Your task to perform on an android device: Open Chrome and go to settings Image 0: 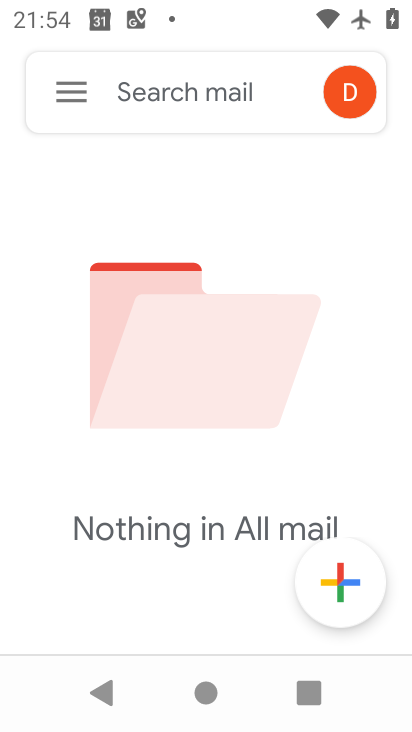
Step 0: press home button
Your task to perform on an android device: Open Chrome and go to settings Image 1: 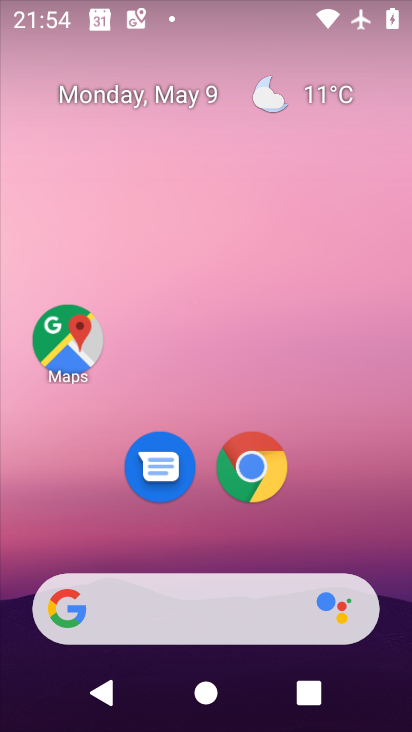
Step 1: drag from (329, 528) to (309, 297)
Your task to perform on an android device: Open Chrome and go to settings Image 2: 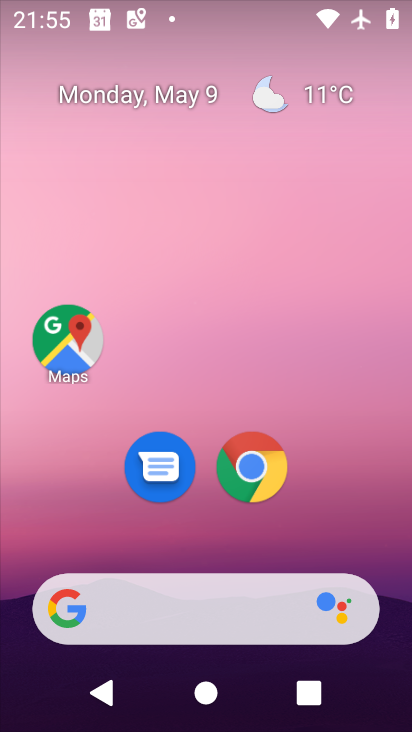
Step 2: drag from (320, 511) to (326, 232)
Your task to perform on an android device: Open Chrome and go to settings Image 3: 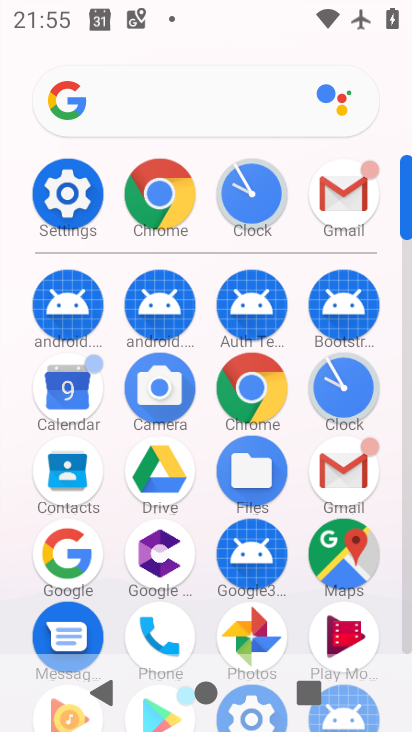
Step 3: click (252, 382)
Your task to perform on an android device: Open Chrome and go to settings Image 4: 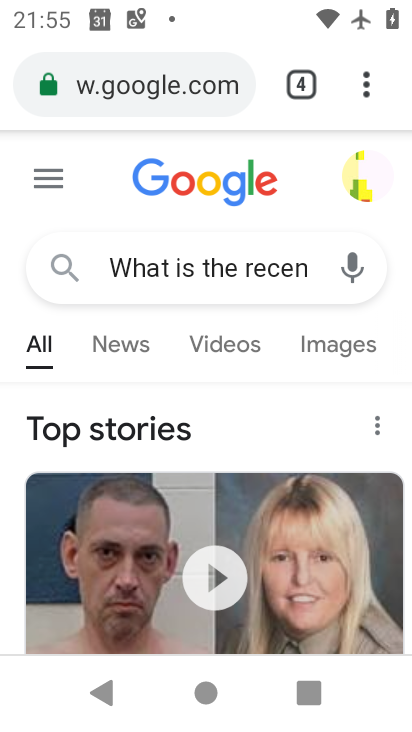
Step 4: click (354, 89)
Your task to perform on an android device: Open Chrome and go to settings Image 5: 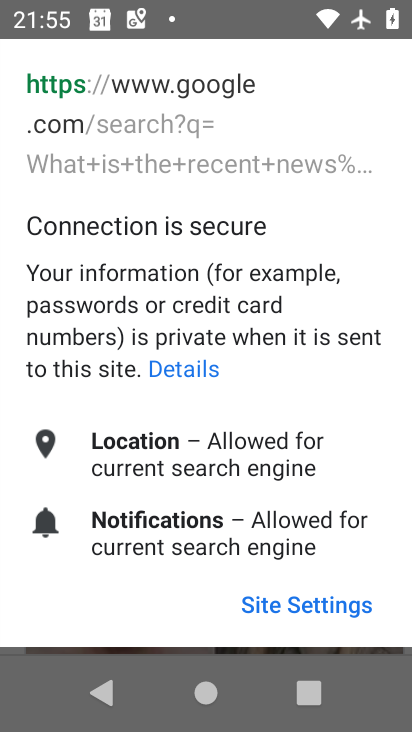
Step 5: press back button
Your task to perform on an android device: Open Chrome and go to settings Image 6: 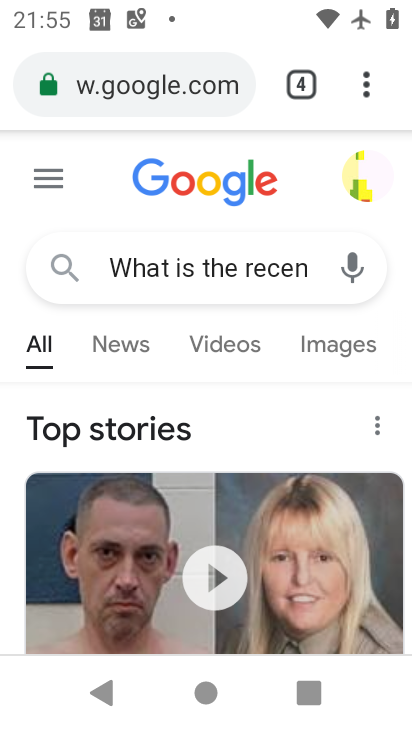
Step 6: click (357, 85)
Your task to perform on an android device: Open Chrome and go to settings Image 7: 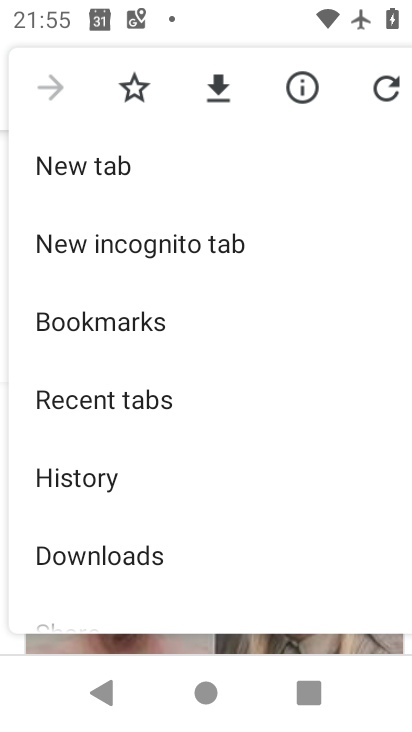
Step 7: drag from (261, 557) to (301, 237)
Your task to perform on an android device: Open Chrome and go to settings Image 8: 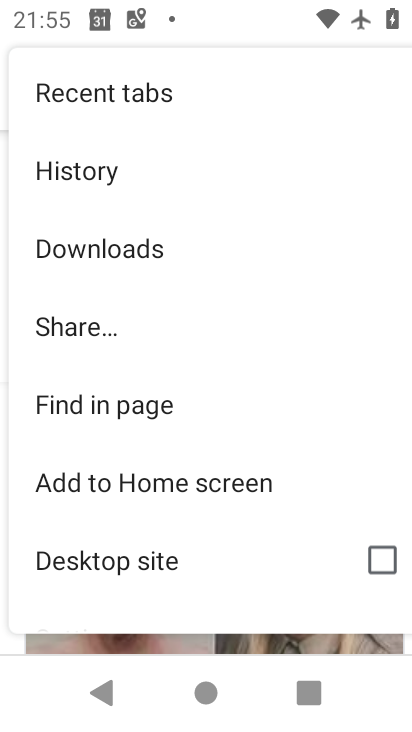
Step 8: drag from (198, 576) to (264, 126)
Your task to perform on an android device: Open Chrome and go to settings Image 9: 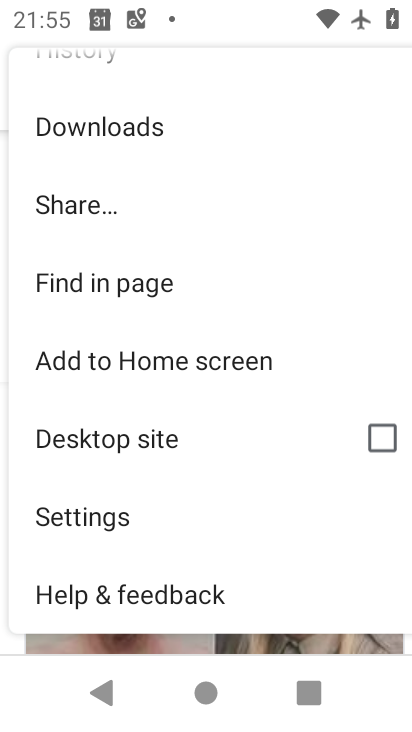
Step 9: click (121, 514)
Your task to perform on an android device: Open Chrome and go to settings Image 10: 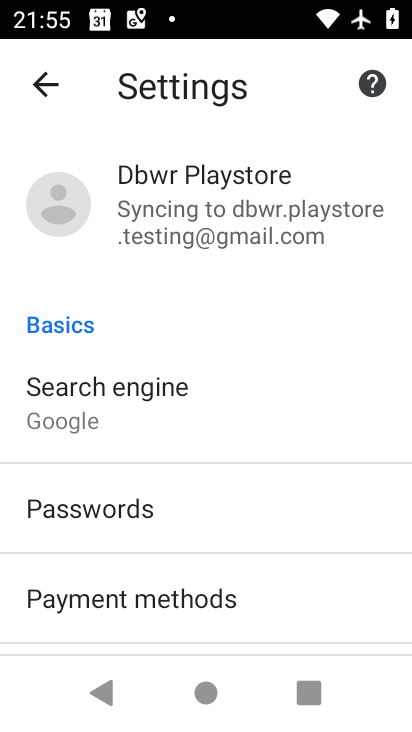
Step 10: task complete